Your task to perform on an android device: What is the recent news? Image 0: 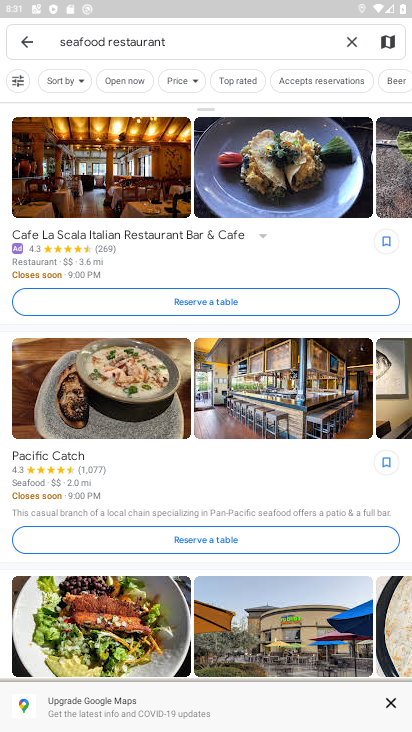
Step 0: press home button
Your task to perform on an android device: What is the recent news? Image 1: 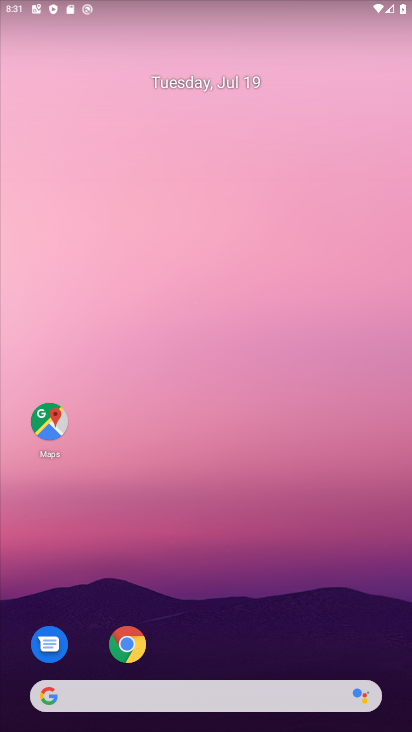
Step 1: drag from (221, 626) to (220, 16)
Your task to perform on an android device: What is the recent news? Image 2: 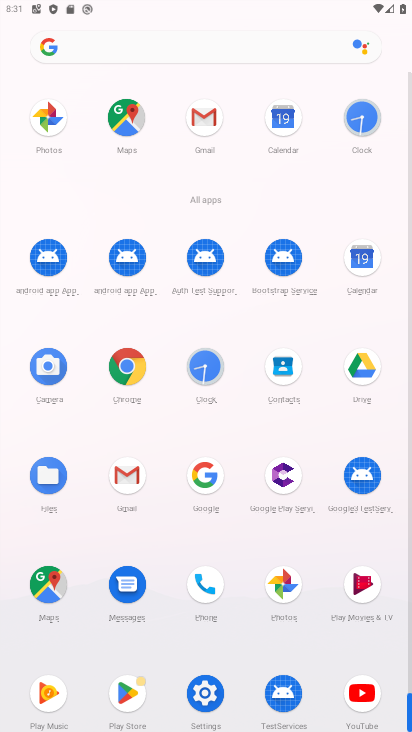
Step 2: click (204, 48)
Your task to perform on an android device: What is the recent news? Image 3: 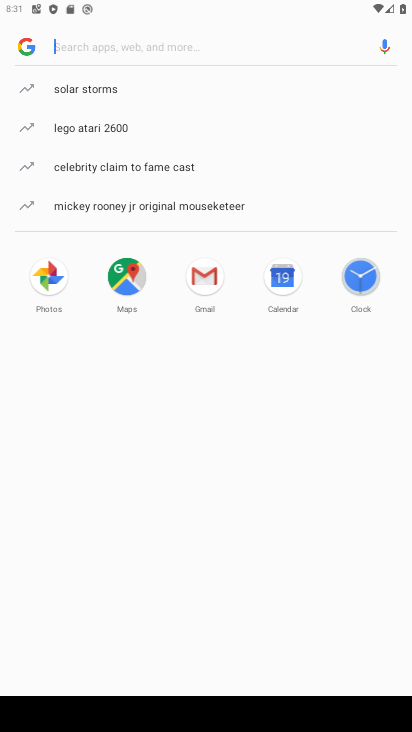
Step 3: type " recent news?"
Your task to perform on an android device: What is the recent news? Image 4: 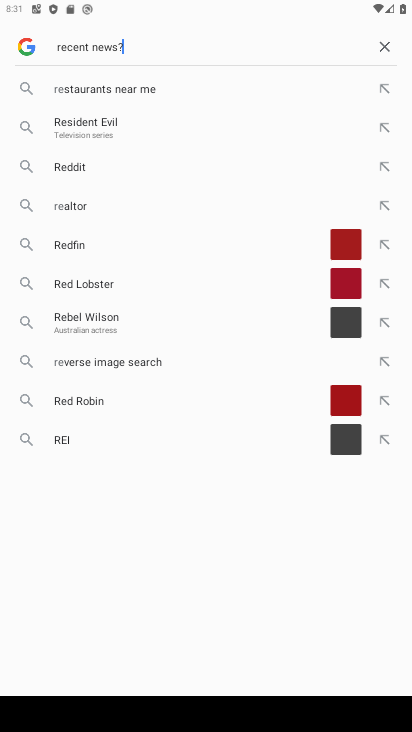
Step 4: type ""
Your task to perform on an android device: What is the recent news? Image 5: 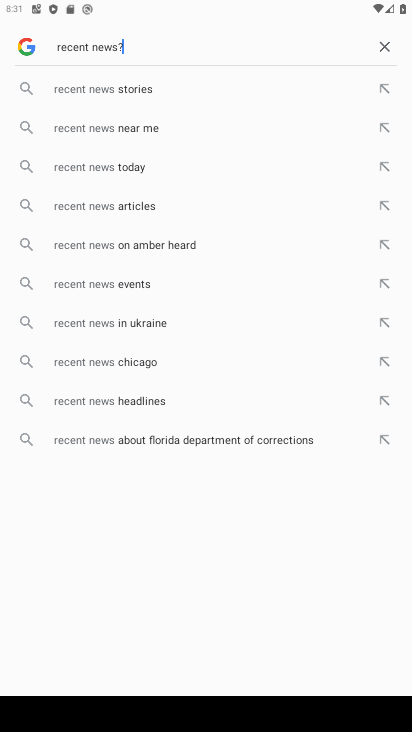
Step 5: click (133, 161)
Your task to perform on an android device: What is the recent news? Image 6: 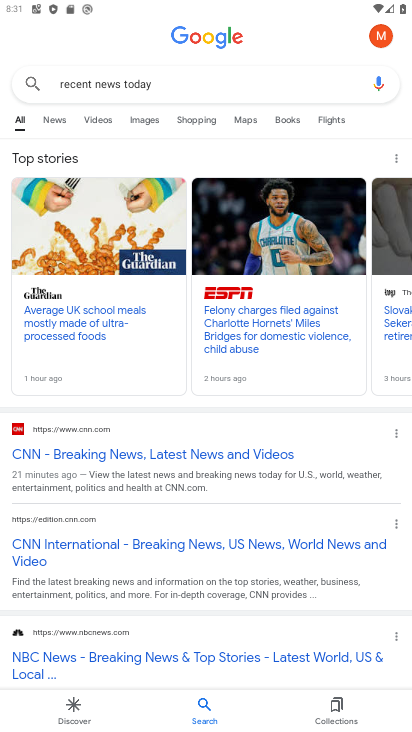
Step 6: task complete